Your task to perform on an android device: Go to eBay Image 0: 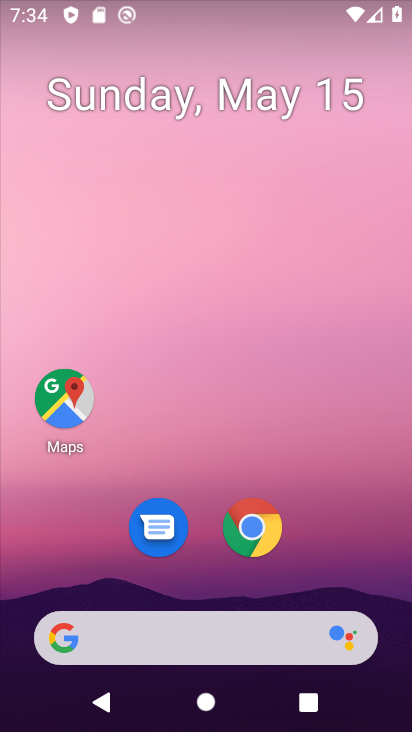
Step 0: click (259, 522)
Your task to perform on an android device: Go to eBay Image 1: 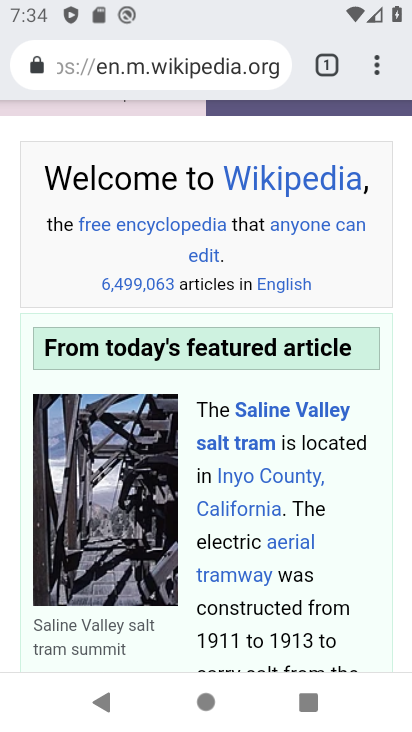
Step 1: click (156, 62)
Your task to perform on an android device: Go to eBay Image 2: 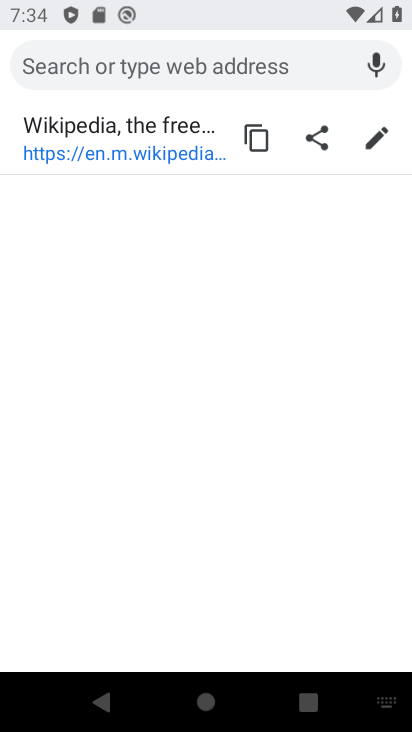
Step 2: type "eBay"
Your task to perform on an android device: Go to eBay Image 3: 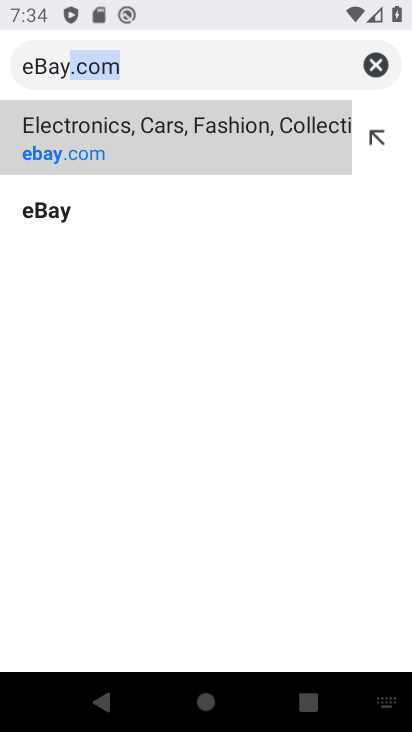
Step 3: click (56, 214)
Your task to perform on an android device: Go to eBay Image 4: 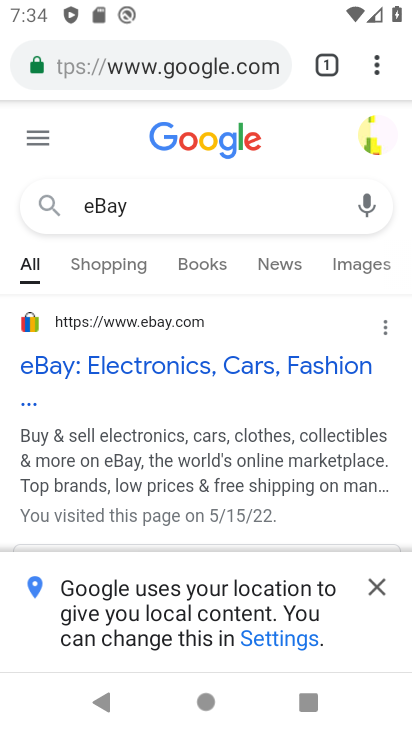
Step 4: task complete